Your task to perform on an android device: add a contact Image 0: 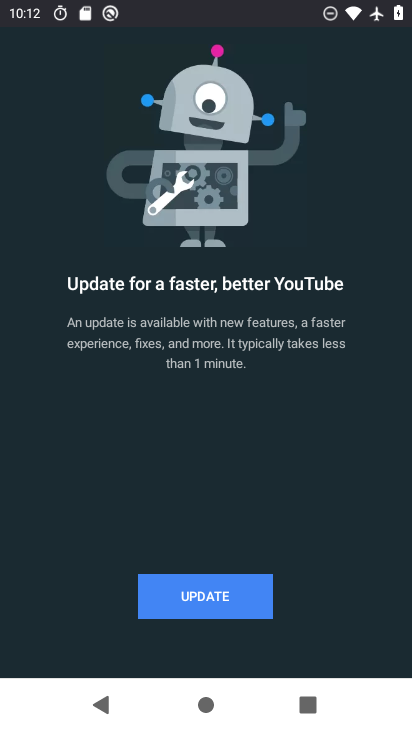
Step 0: press home button
Your task to perform on an android device: add a contact Image 1: 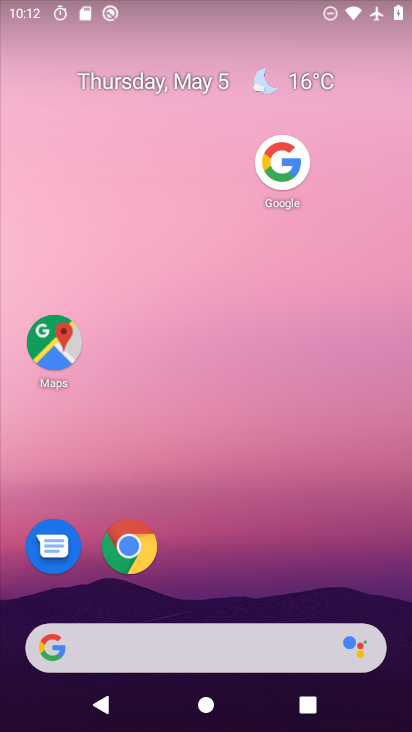
Step 1: drag from (184, 633) to (335, 100)
Your task to perform on an android device: add a contact Image 2: 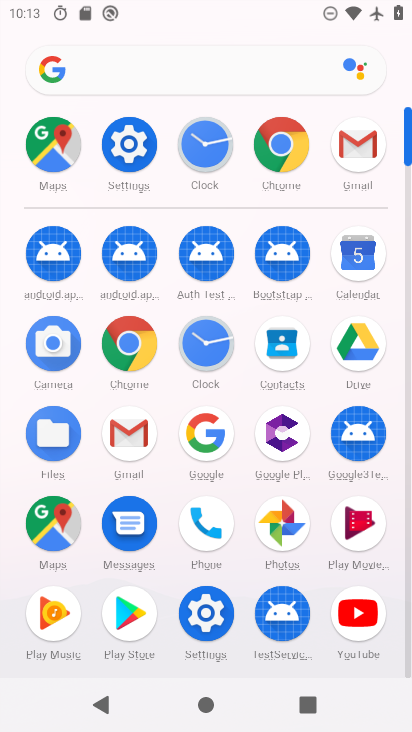
Step 2: click (272, 349)
Your task to perform on an android device: add a contact Image 3: 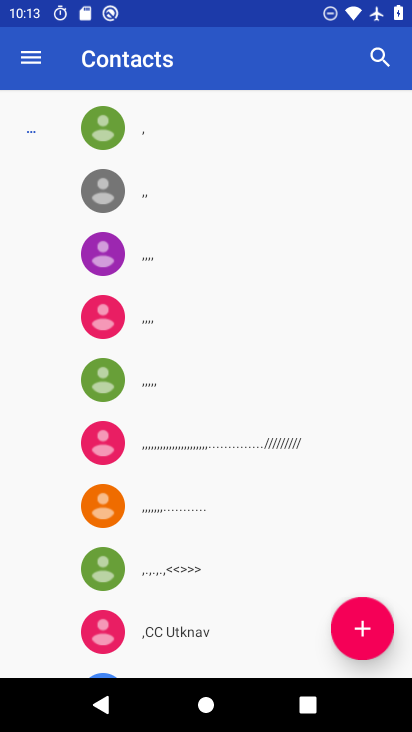
Step 3: click (356, 630)
Your task to perform on an android device: add a contact Image 4: 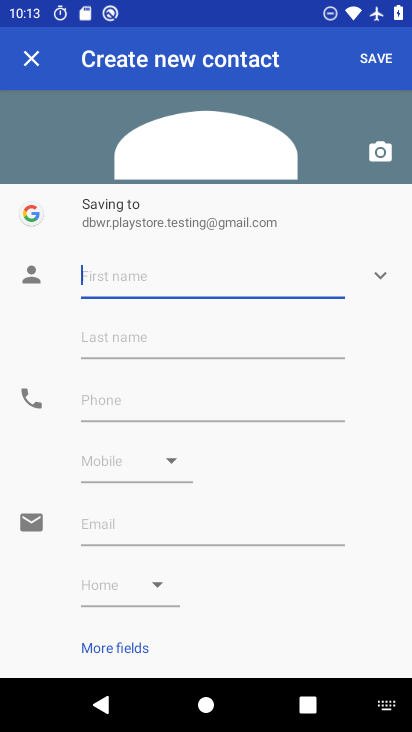
Step 4: click (154, 274)
Your task to perform on an android device: add a contact Image 5: 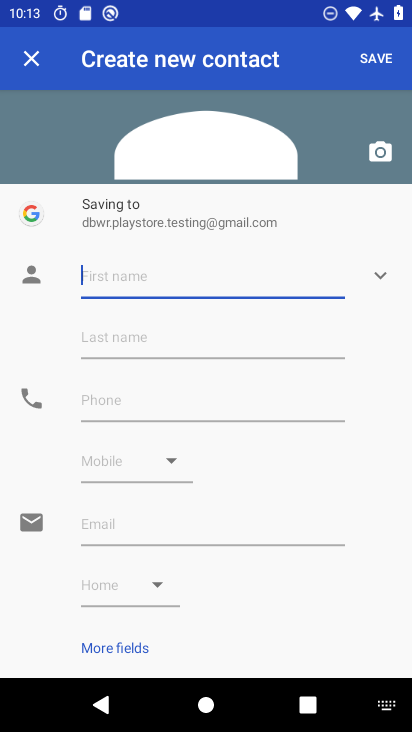
Step 5: type "wsderfds"
Your task to perform on an android device: add a contact Image 6: 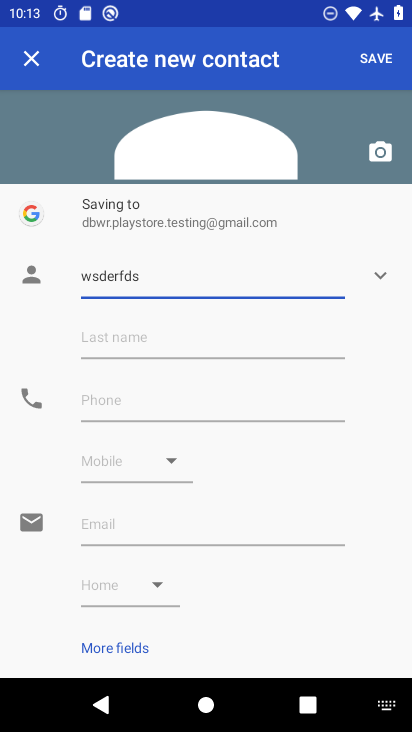
Step 6: click (120, 390)
Your task to perform on an android device: add a contact Image 7: 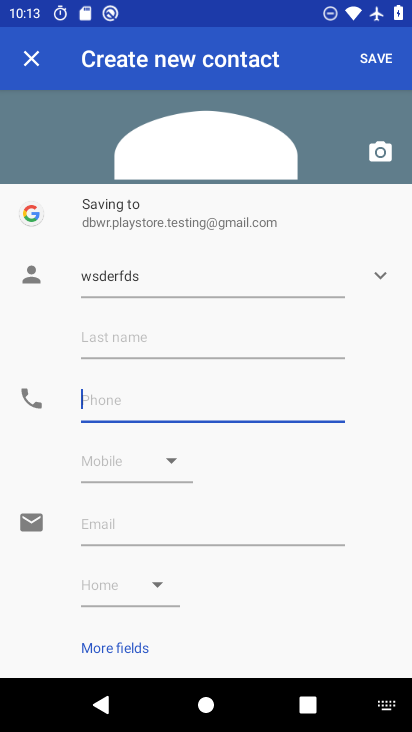
Step 7: type "0568463829"
Your task to perform on an android device: add a contact Image 8: 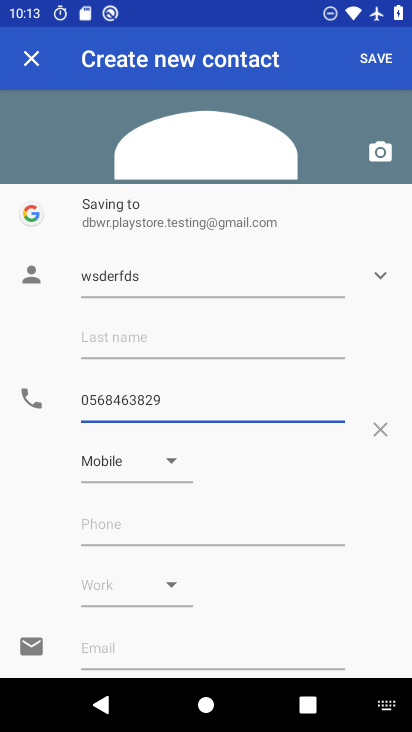
Step 8: click (388, 59)
Your task to perform on an android device: add a contact Image 9: 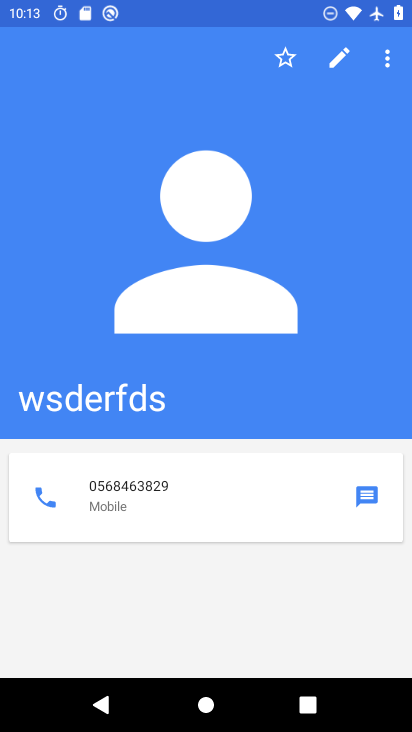
Step 9: task complete